Your task to perform on an android device: Go to Android settings Image 0: 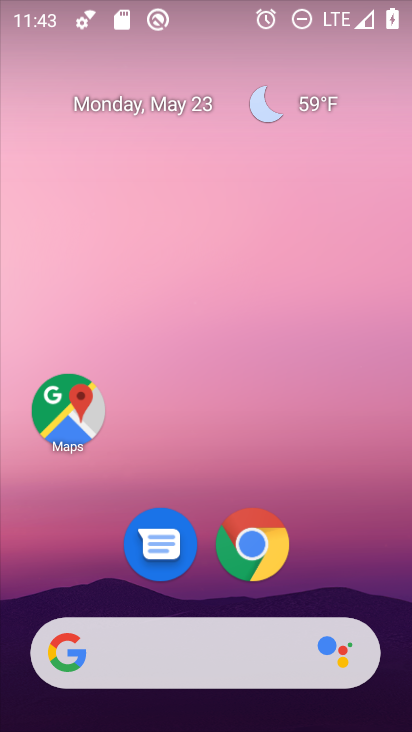
Step 0: drag from (393, 631) to (351, 102)
Your task to perform on an android device: Go to Android settings Image 1: 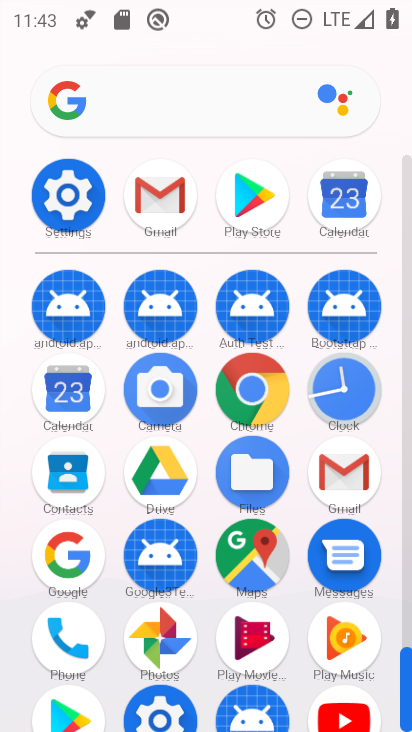
Step 1: click (158, 714)
Your task to perform on an android device: Go to Android settings Image 2: 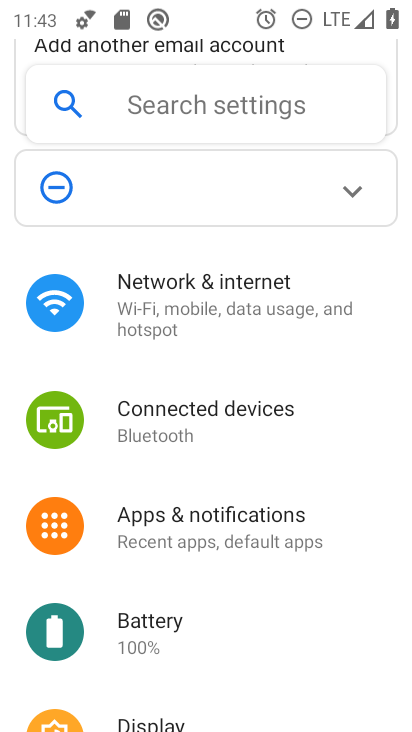
Step 2: drag from (367, 696) to (325, 179)
Your task to perform on an android device: Go to Android settings Image 3: 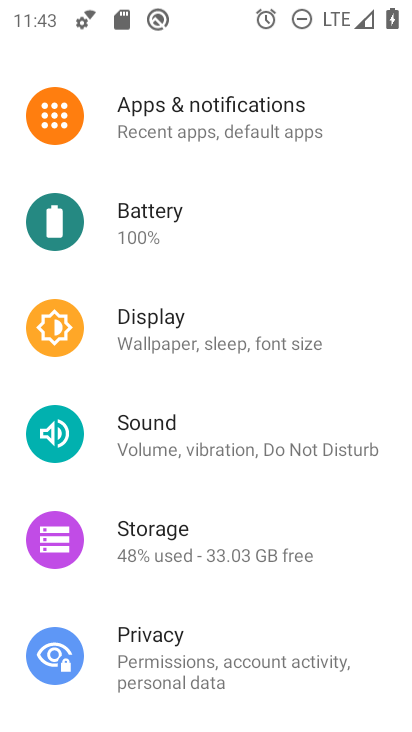
Step 3: drag from (356, 650) to (336, 252)
Your task to perform on an android device: Go to Android settings Image 4: 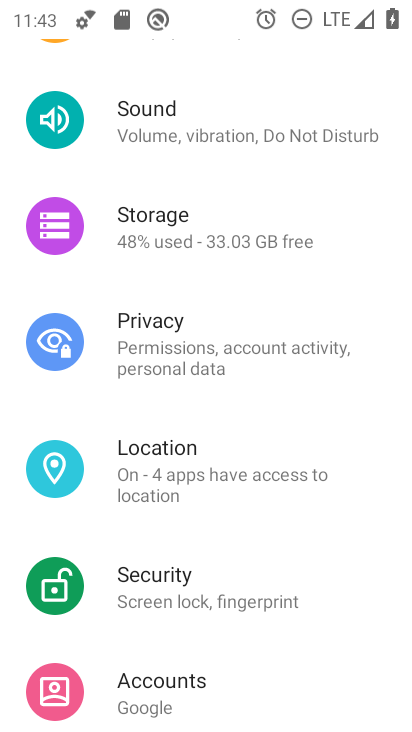
Step 4: drag from (349, 634) to (348, 141)
Your task to perform on an android device: Go to Android settings Image 5: 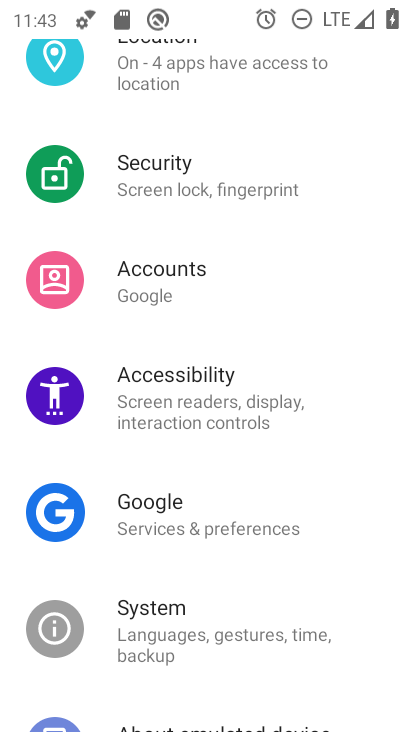
Step 5: drag from (351, 625) to (334, 142)
Your task to perform on an android device: Go to Android settings Image 6: 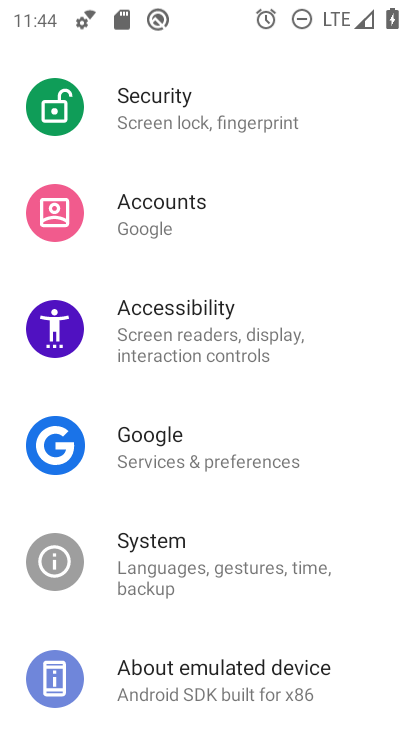
Step 6: click (189, 668)
Your task to perform on an android device: Go to Android settings Image 7: 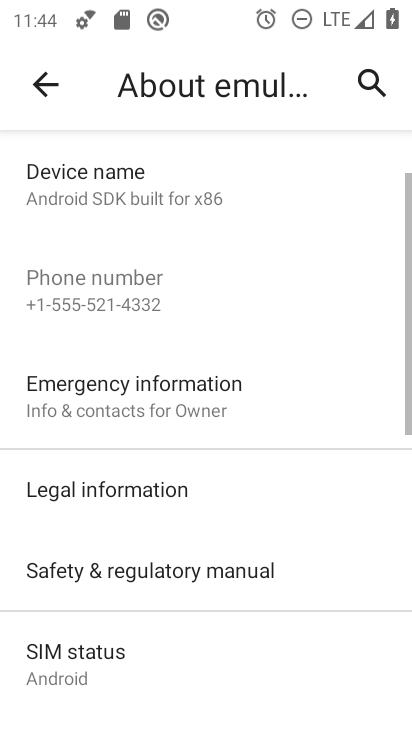
Step 7: task complete